Your task to perform on an android device: Play the last video I watched on Youtube Image 0: 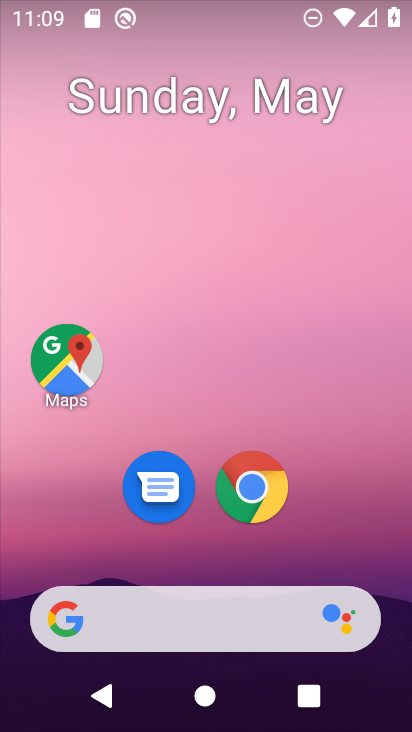
Step 0: drag from (360, 544) to (257, 147)
Your task to perform on an android device: Play the last video I watched on Youtube Image 1: 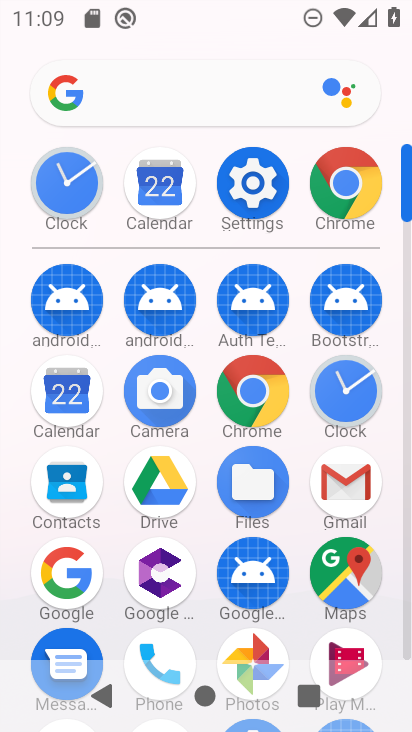
Step 1: click (407, 650)
Your task to perform on an android device: Play the last video I watched on Youtube Image 2: 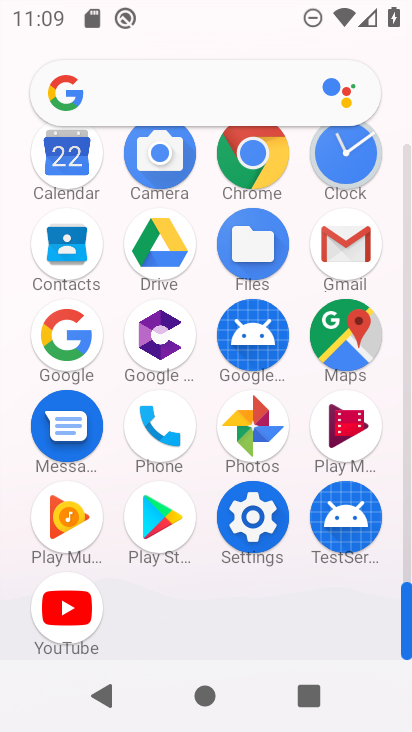
Step 2: click (76, 623)
Your task to perform on an android device: Play the last video I watched on Youtube Image 3: 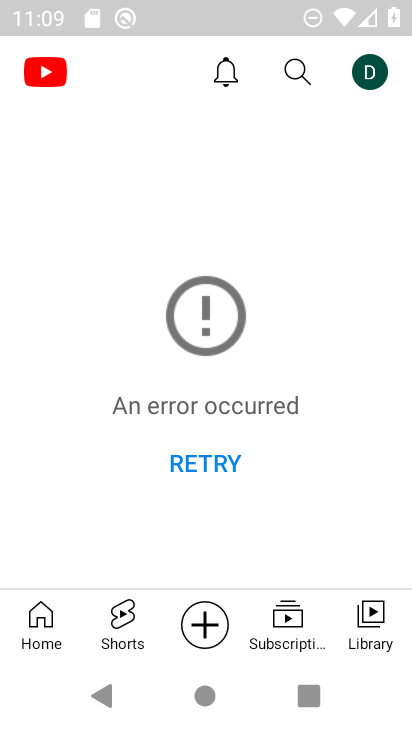
Step 3: click (379, 621)
Your task to perform on an android device: Play the last video I watched on Youtube Image 4: 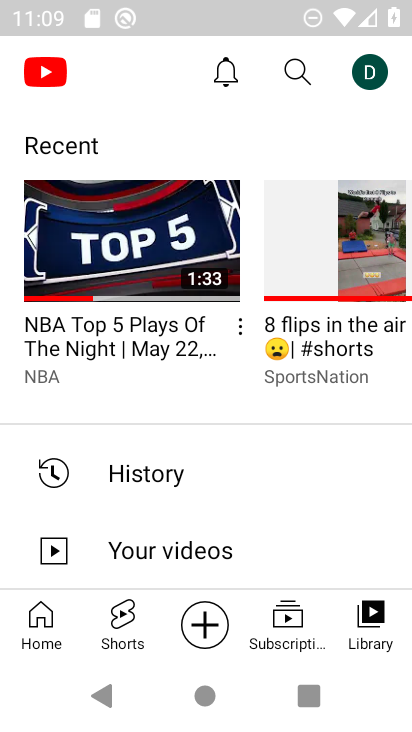
Step 4: click (123, 253)
Your task to perform on an android device: Play the last video I watched on Youtube Image 5: 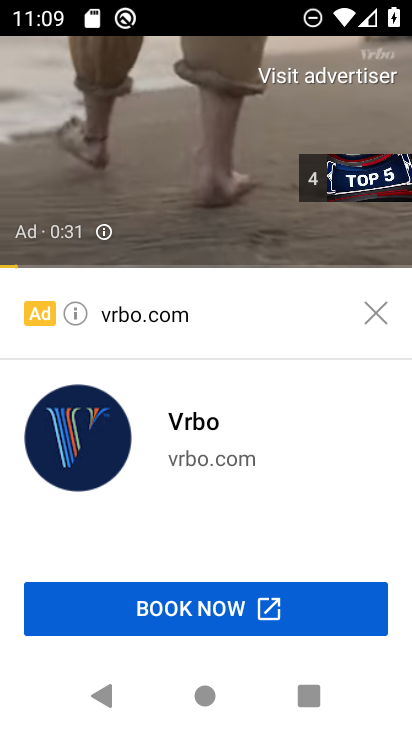
Step 5: task complete